Your task to perform on an android device: Add "usb-c" to the cart on walmart.com, then select checkout. Image 0: 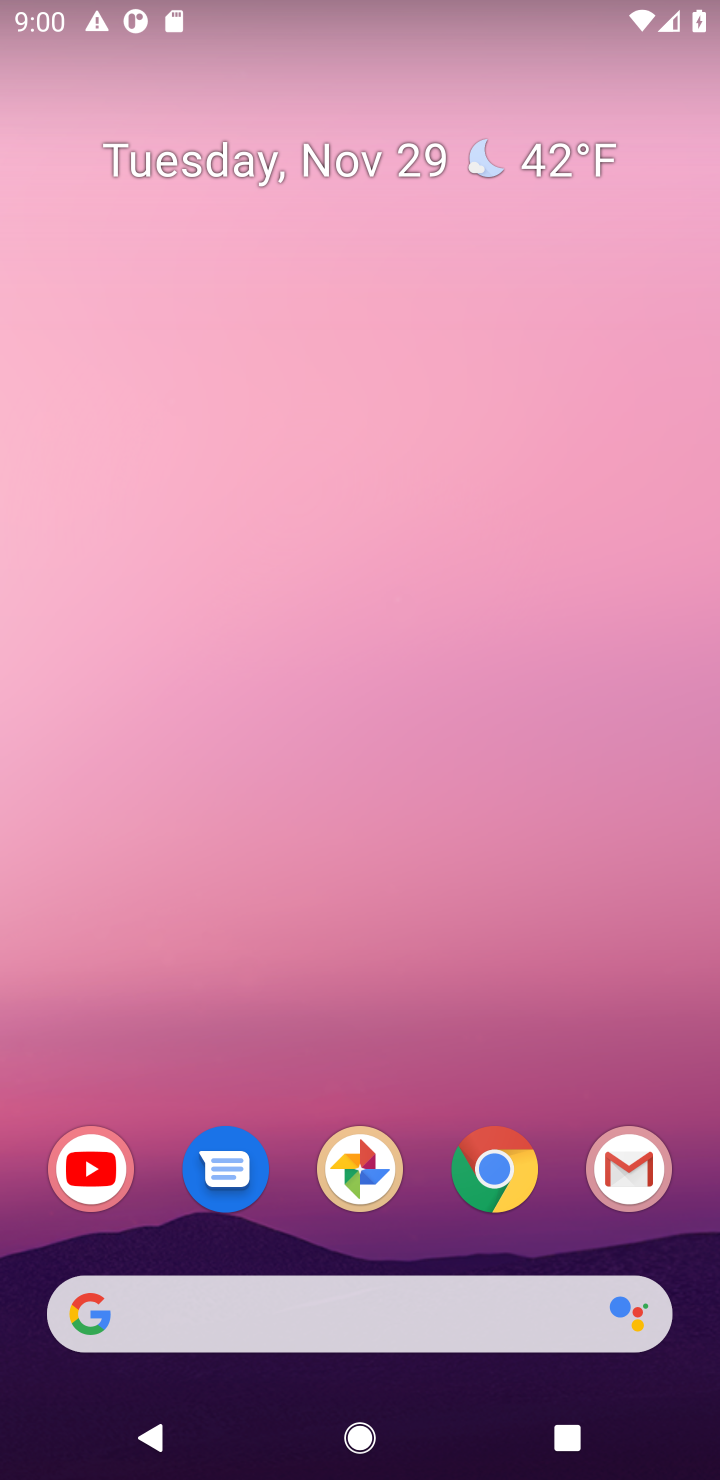
Step 0: click (377, 1281)
Your task to perform on an android device: Add "usb-c" to the cart on walmart.com, then select checkout. Image 1: 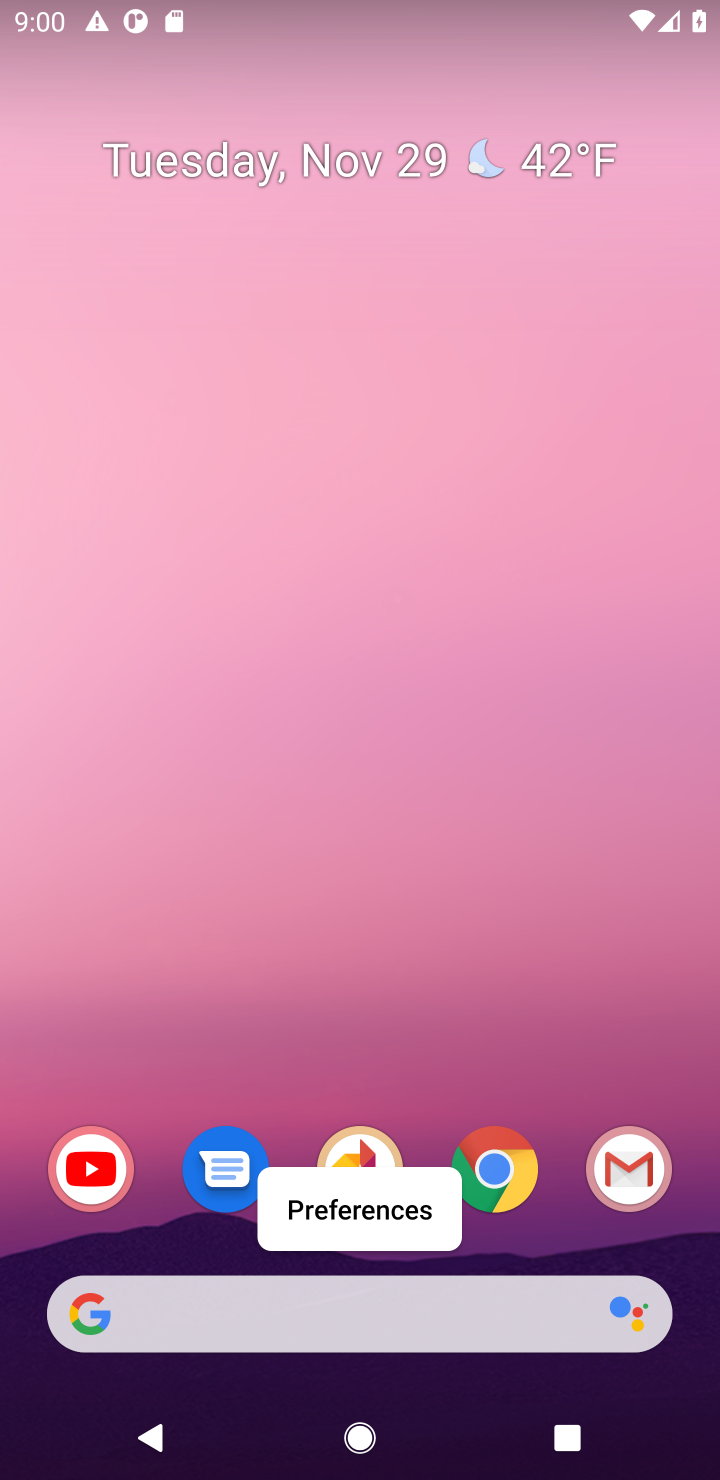
Step 1: type "walmart"
Your task to perform on an android device: Add "usb-c" to the cart on walmart.com, then select checkout. Image 2: 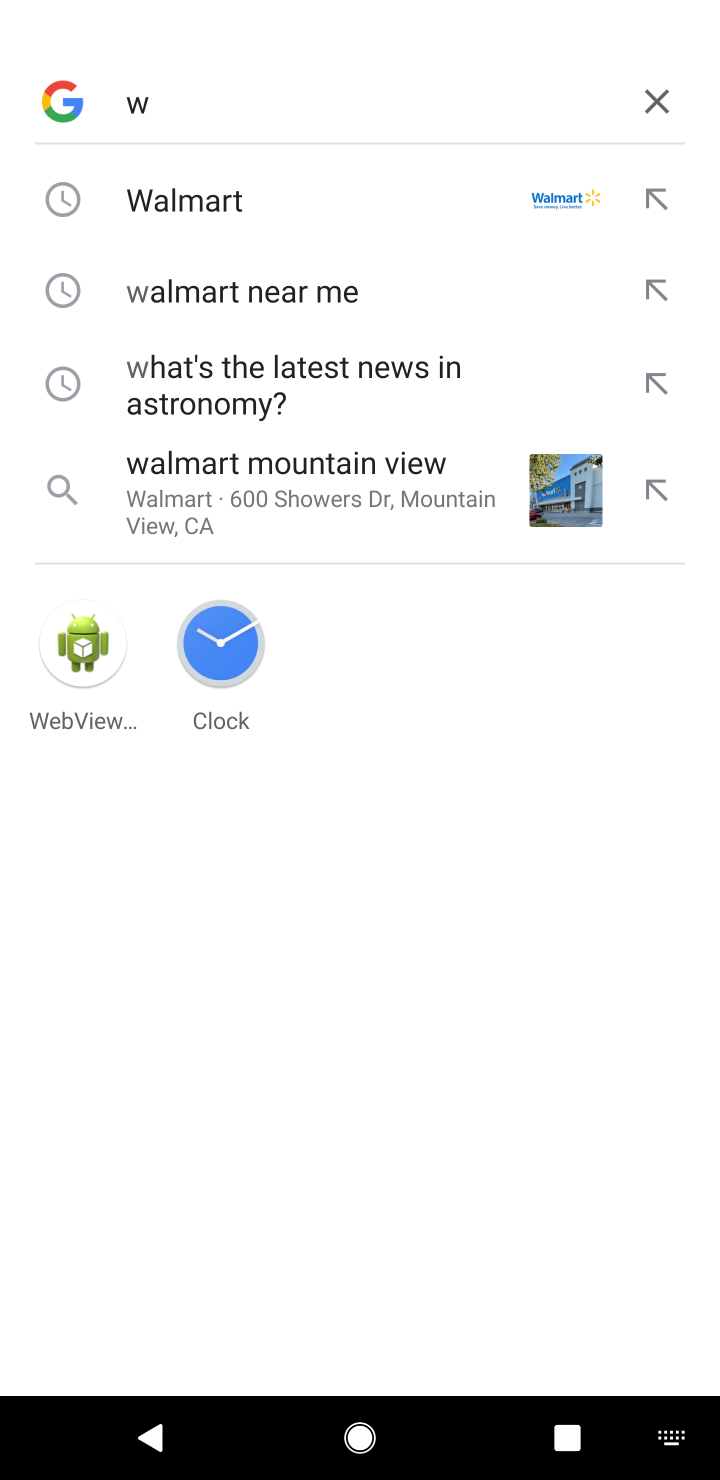
Step 2: click (166, 171)
Your task to perform on an android device: Add "usb-c" to the cart on walmart.com, then select checkout. Image 3: 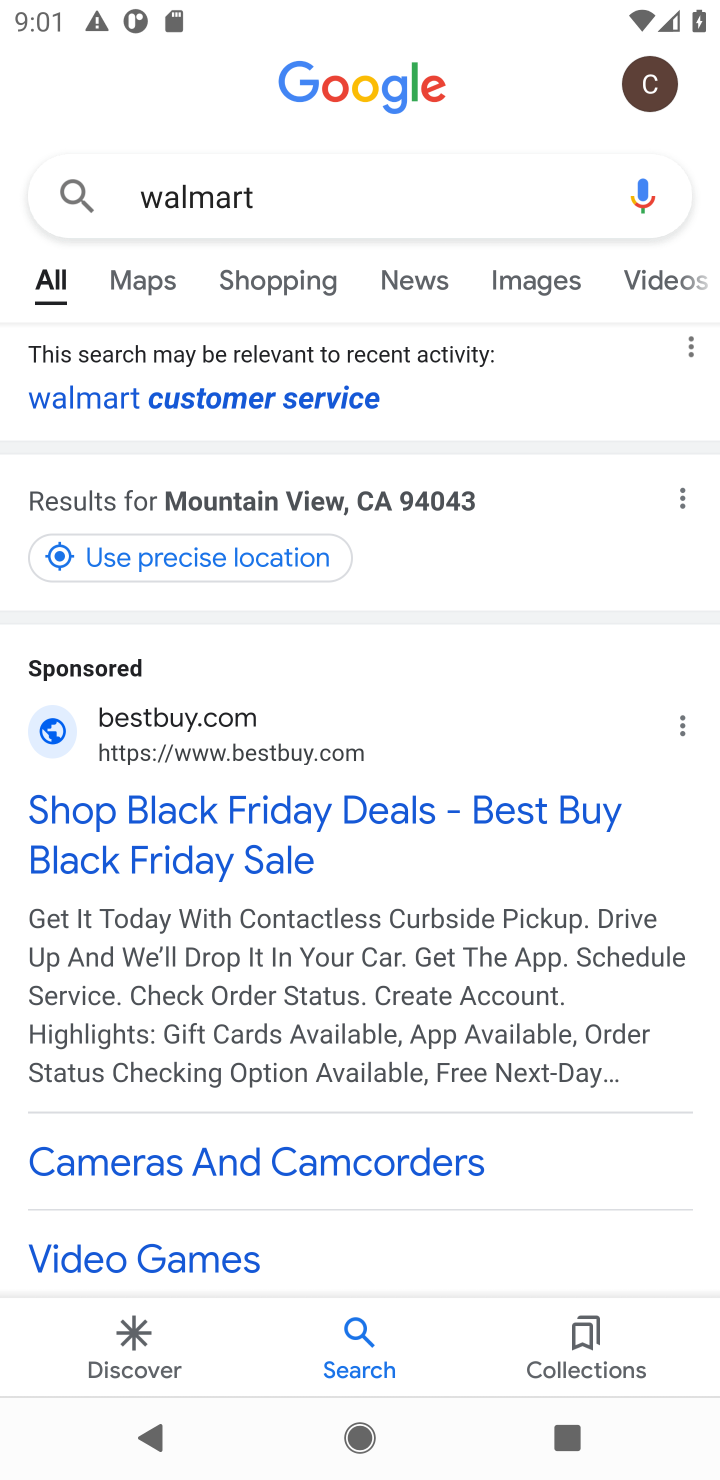
Step 3: click (141, 816)
Your task to perform on an android device: Add "usb-c" to the cart on walmart.com, then select checkout. Image 4: 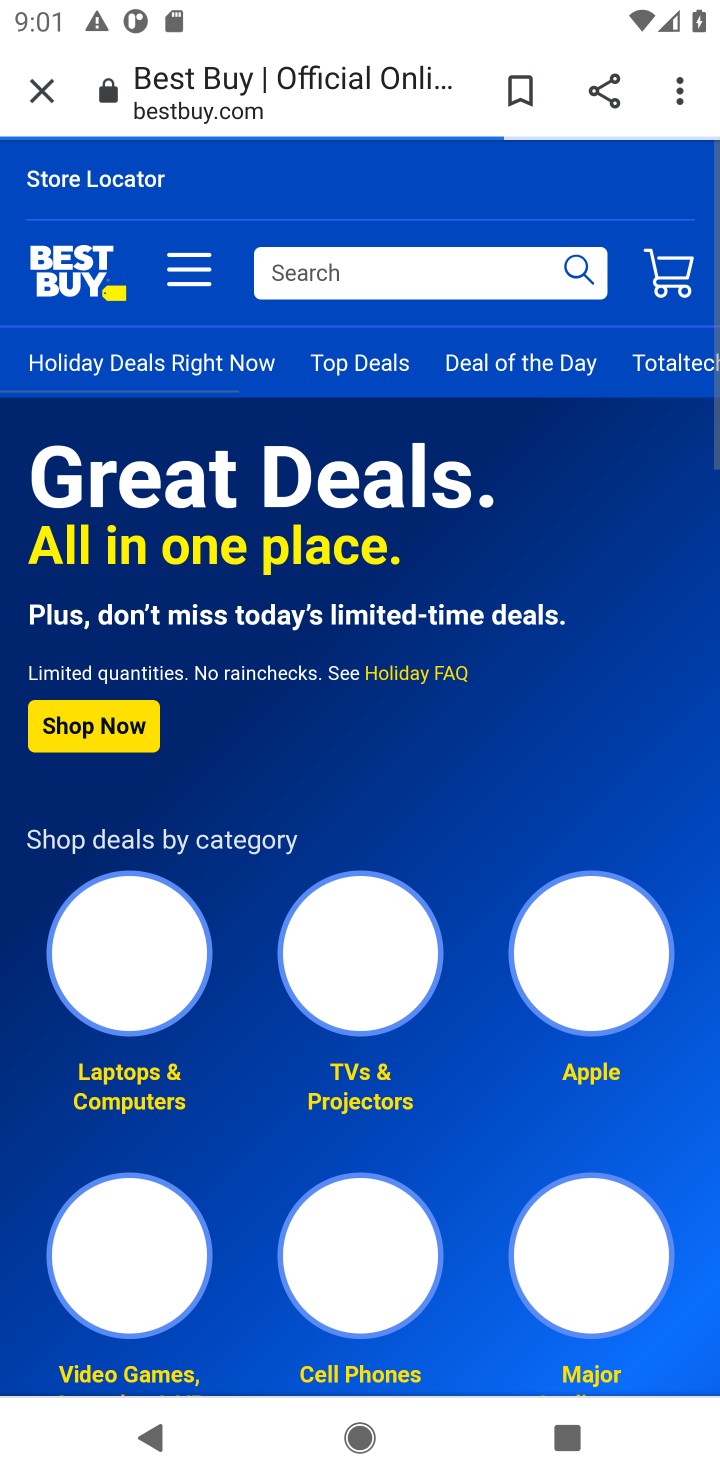
Step 4: task complete